Your task to perform on an android device: Go to location settings Image 0: 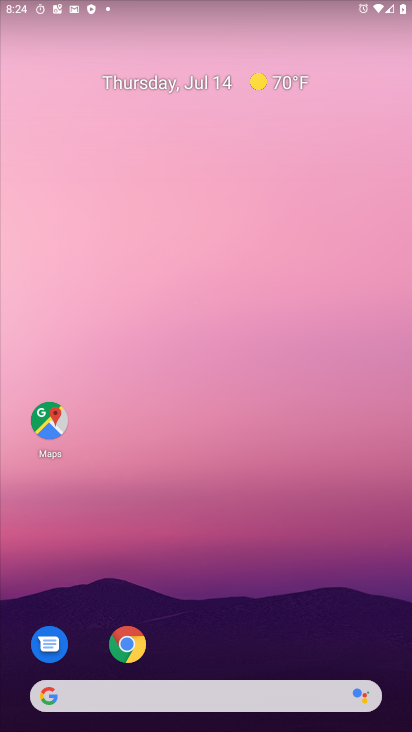
Step 0: drag from (259, 690) to (310, 147)
Your task to perform on an android device: Go to location settings Image 1: 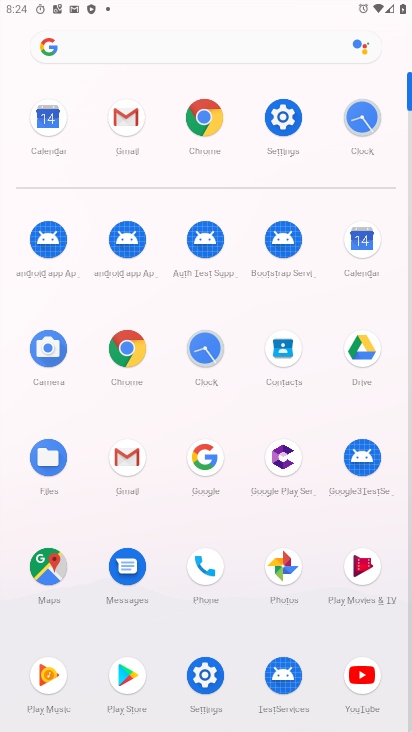
Step 1: click (279, 119)
Your task to perform on an android device: Go to location settings Image 2: 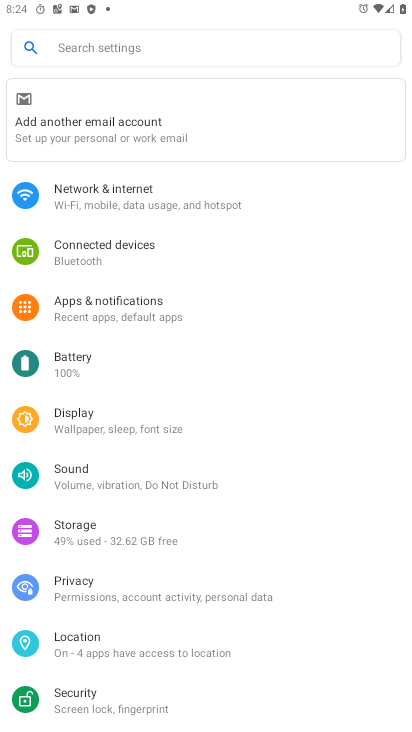
Step 2: click (134, 652)
Your task to perform on an android device: Go to location settings Image 3: 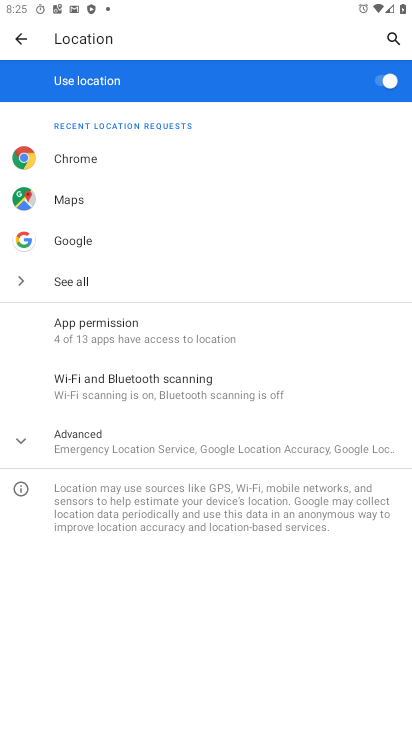
Step 3: task complete